Your task to perform on an android device: open app "Airtel Thanks" Image 0: 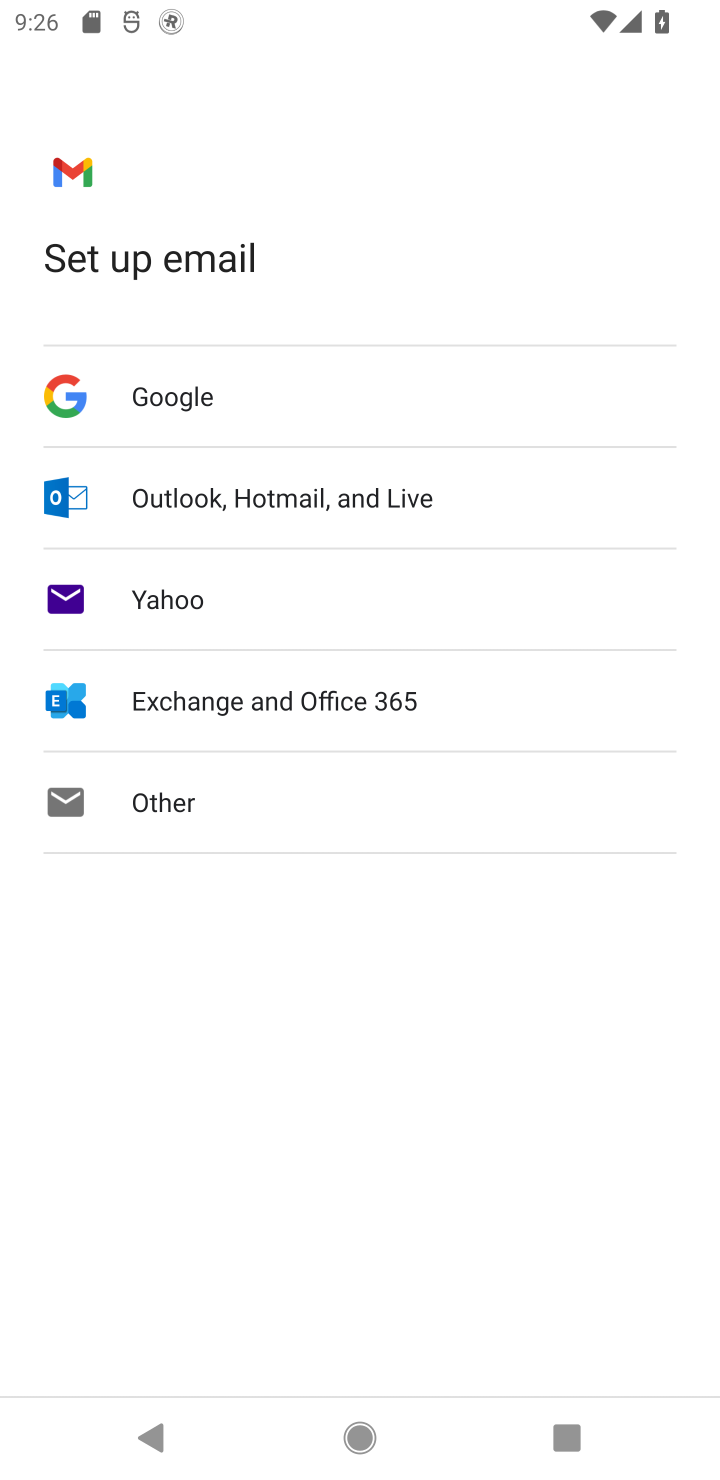
Step 0: press home button
Your task to perform on an android device: open app "Airtel Thanks" Image 1: 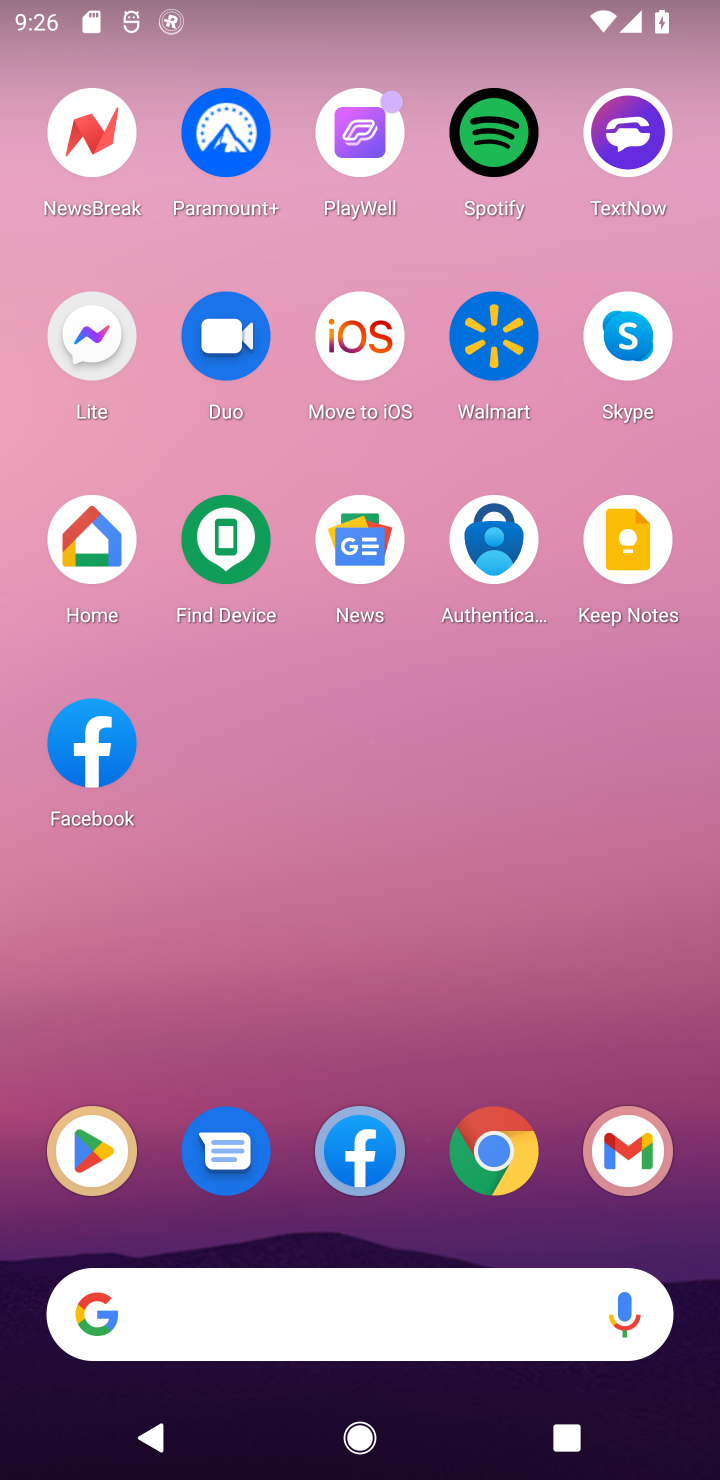
Step 1: click (60, 1130)
Your task to perform on an android device: open app "Airtel Thanks" Image 2: 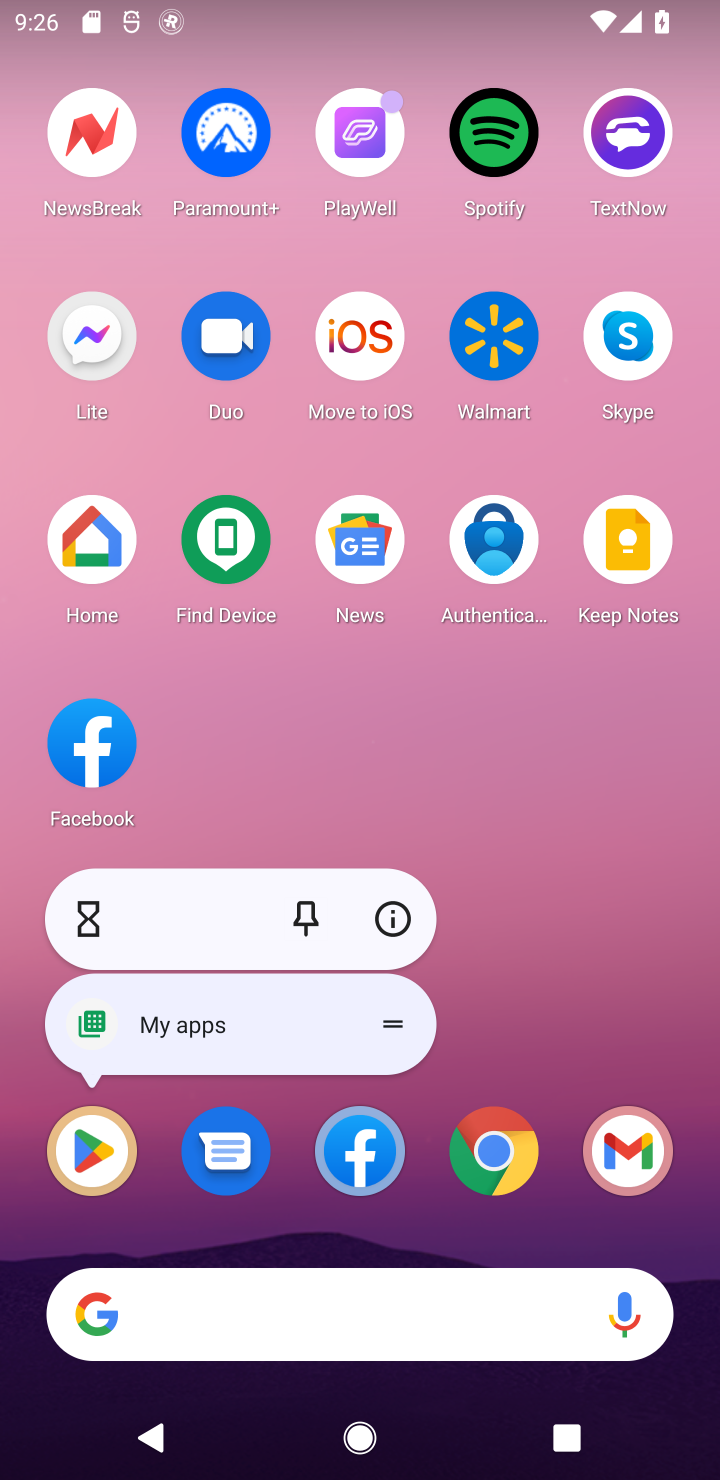
Step 2: click (120, 1150)
Your task to perform on an android device: open app "Airtel Thanks" Image 3: 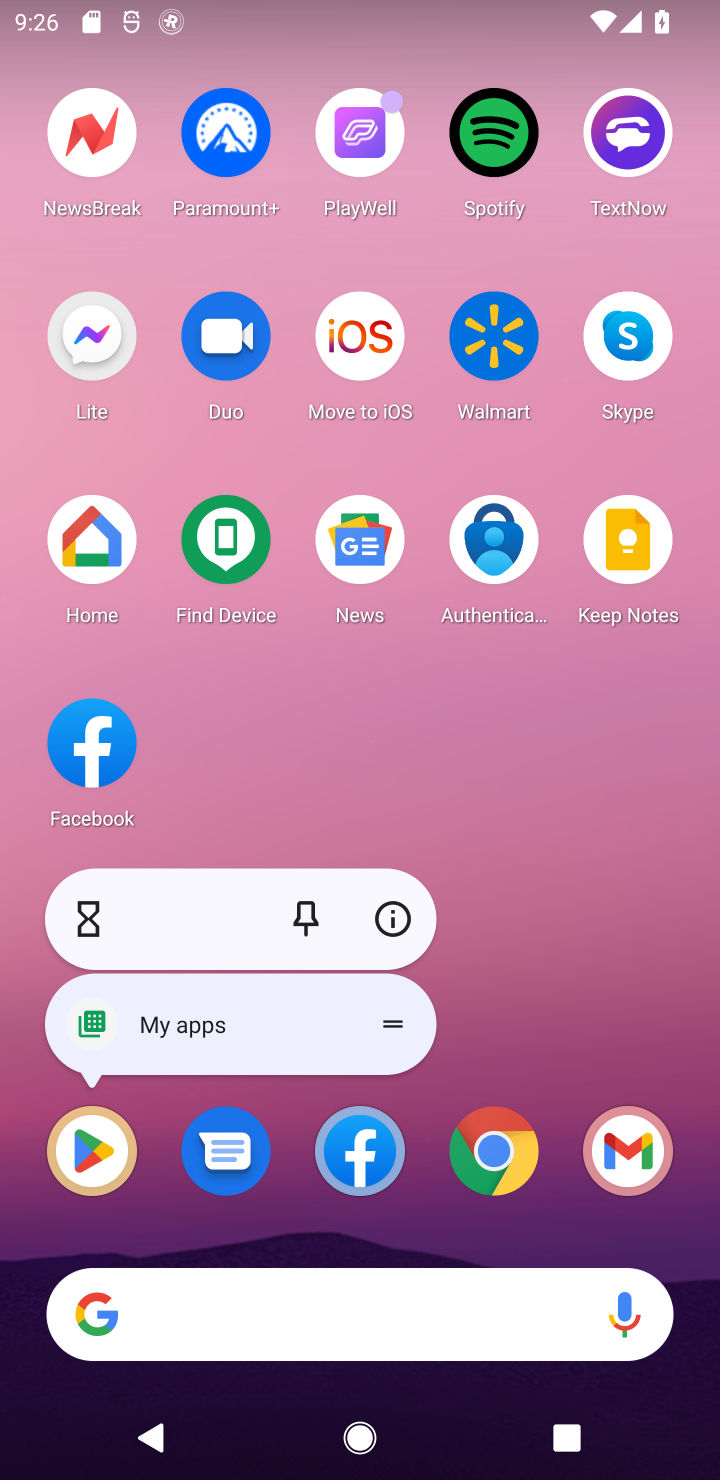
Step 3: click (120, 1150)
Your task to perform on an android device: open app "Airtel Thanks" Image 4: 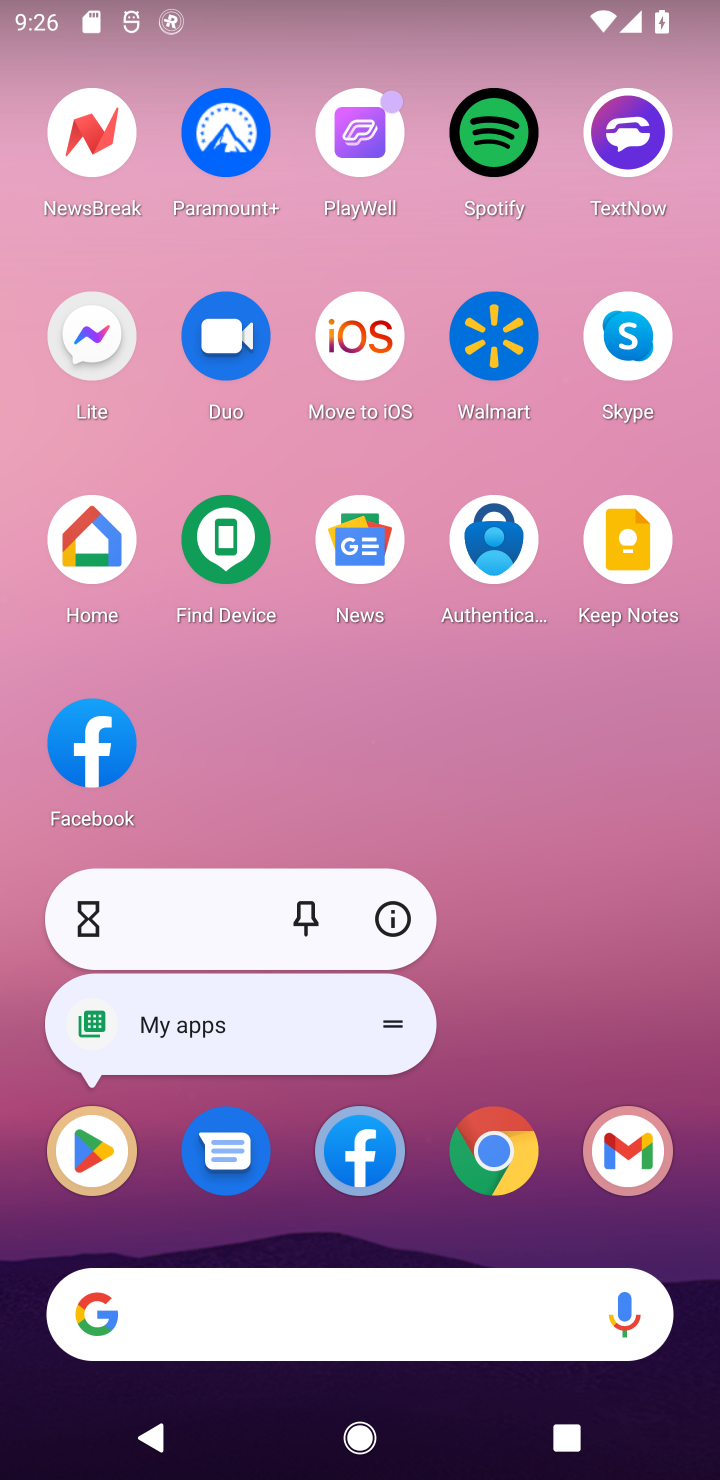
Step 4: click (85, 1158)
Your task to perform on an android device: open app "Airtel Thanks" Image 5: 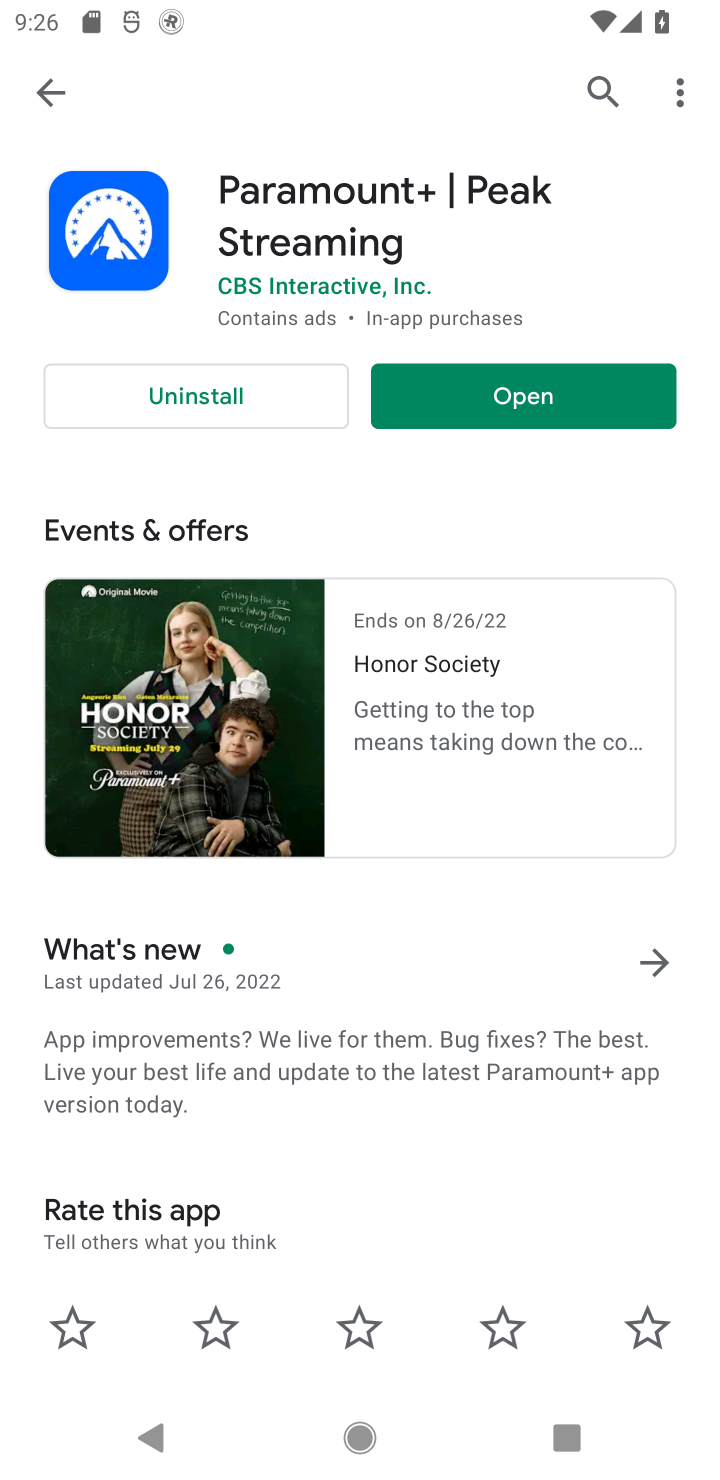
Step 5: click (609, 93)
Your task to perform on an android device: open app "Airtel Thanks" Image 6: 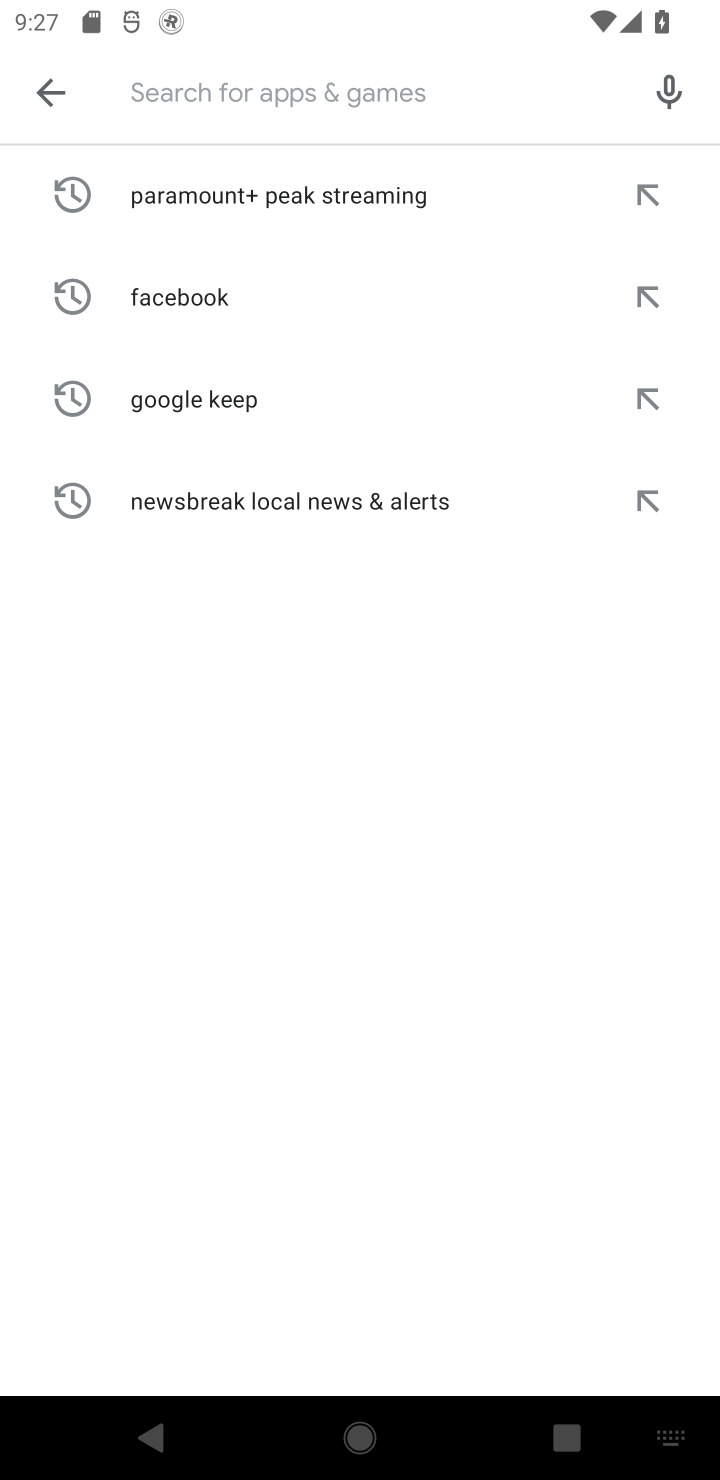
Step 6: type "Airtel Thanks"
Your task to perform on an android device: open app "Airtel Thanks" Image 7: 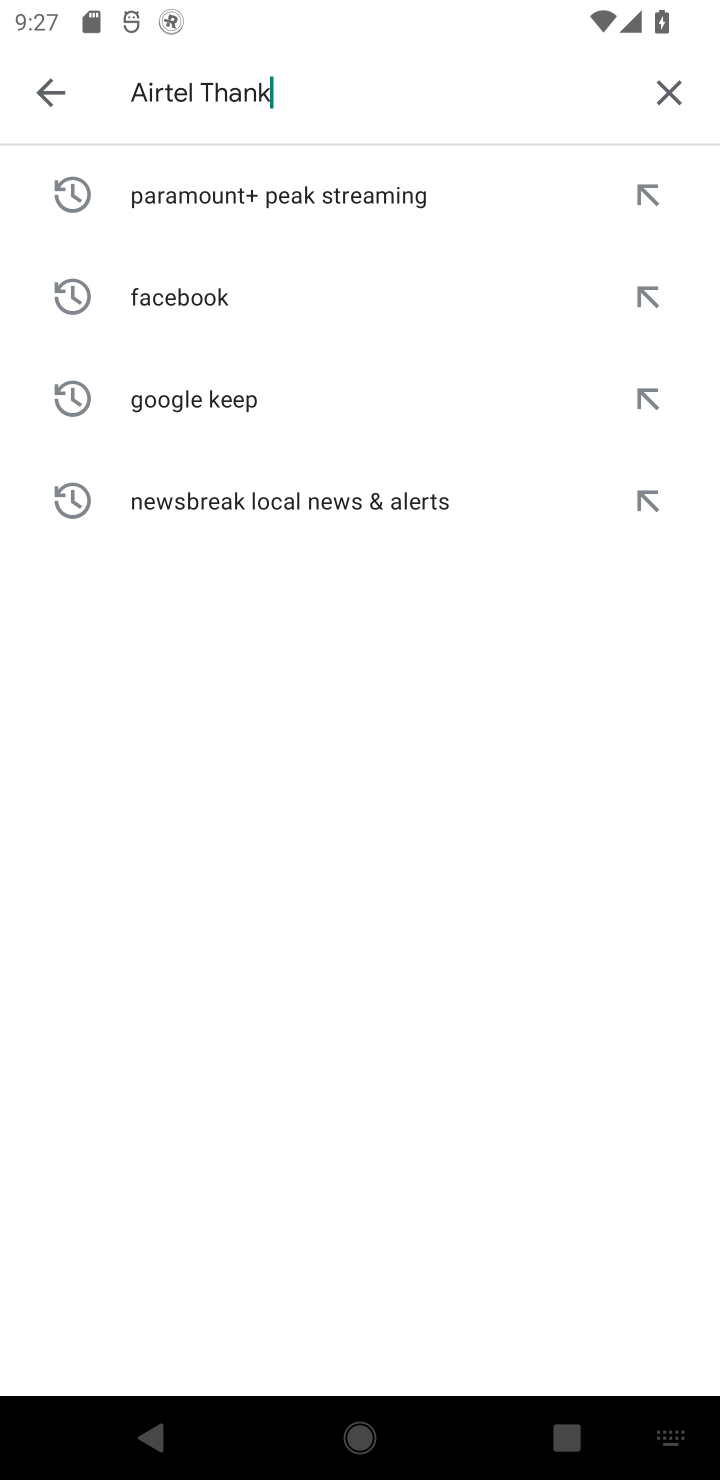
Step 7: type ""
Your task to perform on an android device: open app "Airtel Thanks" Image 8: 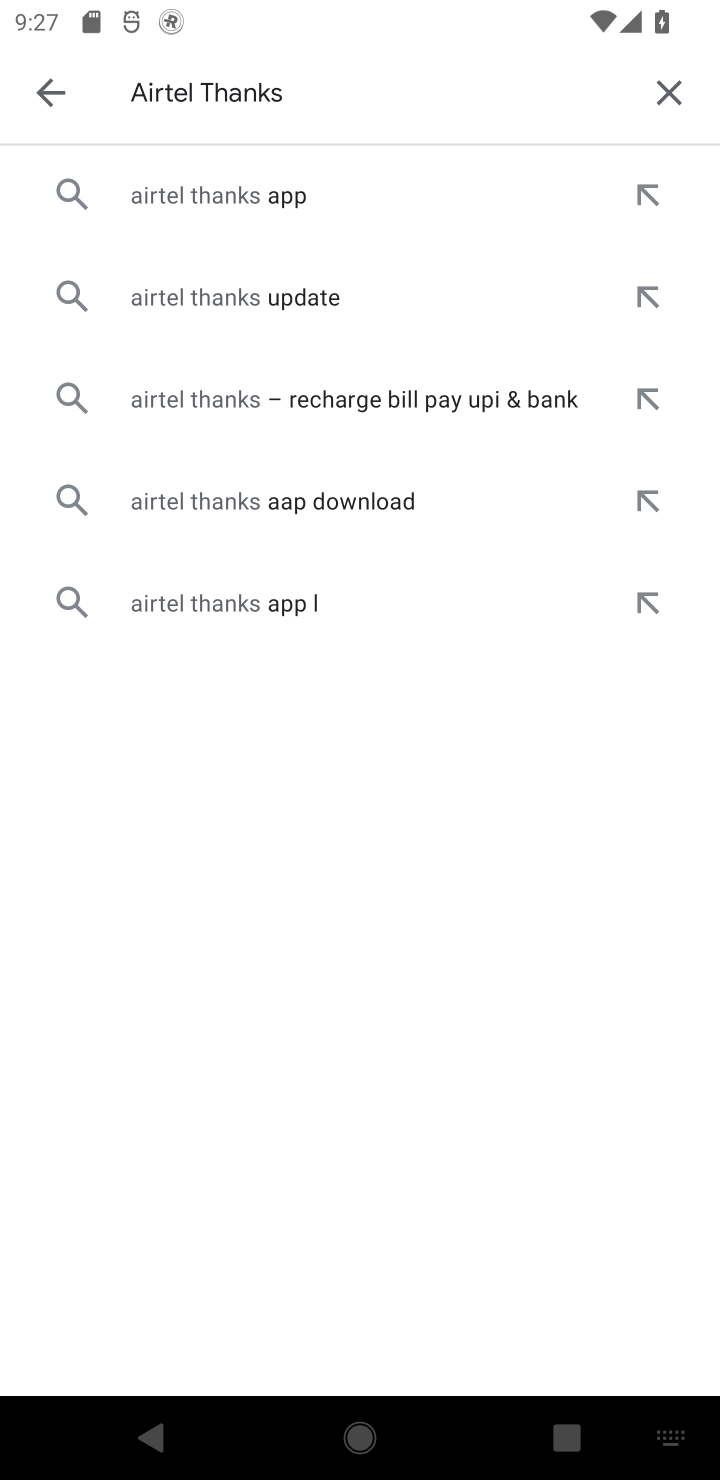
Step 8: click (280, 200)
Your task to perform on an android device: open app "Airtel Thanks" Image 9: 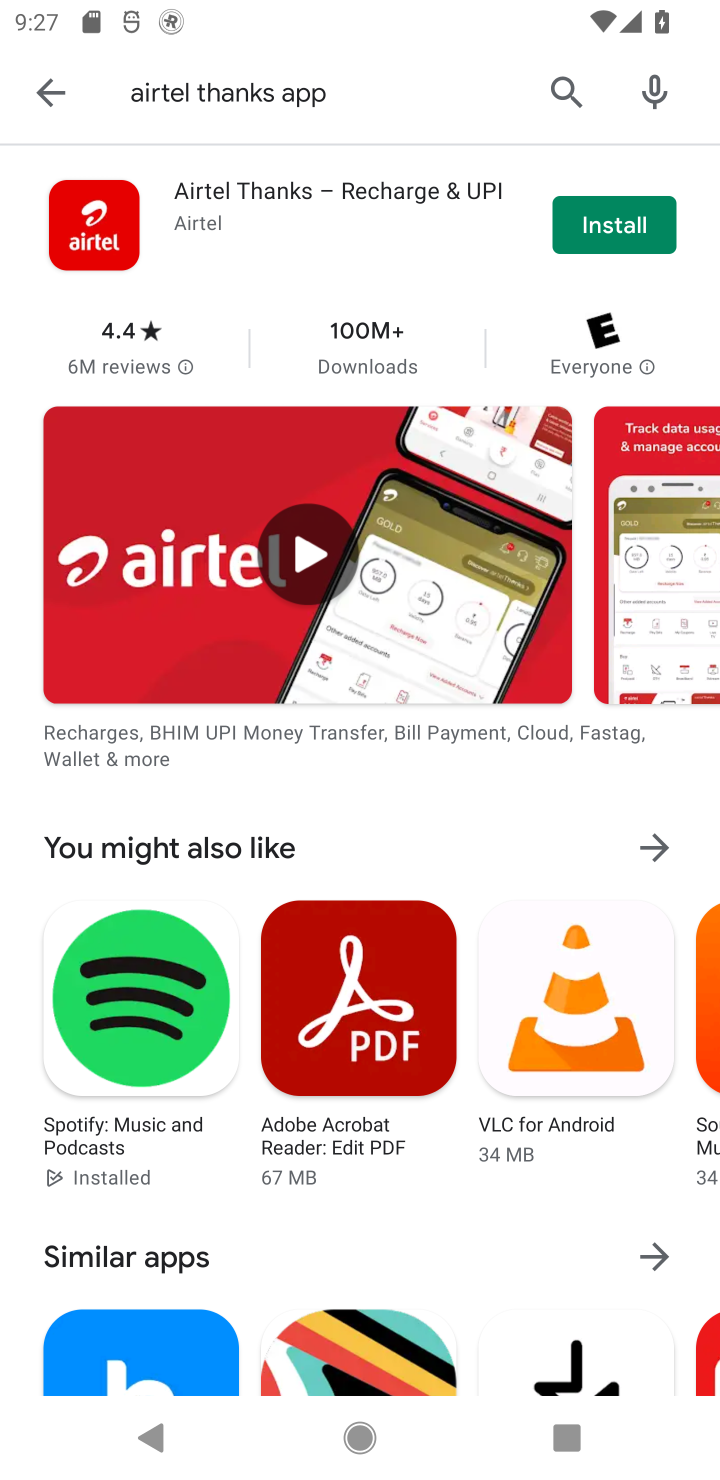
Step 9: task complete